Your task to perform on an android device: all mails in gmail Image 0: 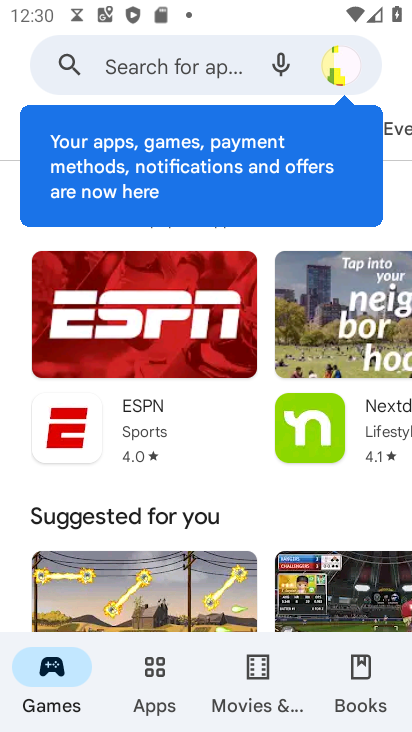
Step 0: press home button
Your task to perform on an android device: all mails in gmail Image 1: 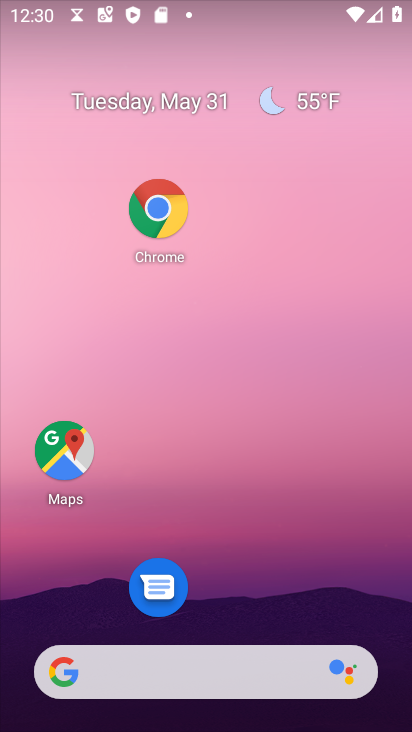
Step 1: drag from (290, 527) to (192, 97)
Your task to perform on an android device: all mails in gmail Image 2: 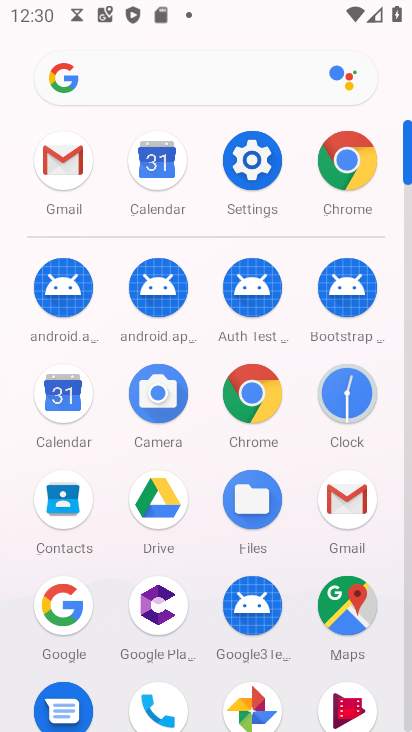
Step 2: click (66, 155)
Your task to perform on an android device: all mails in gmail Image 3: 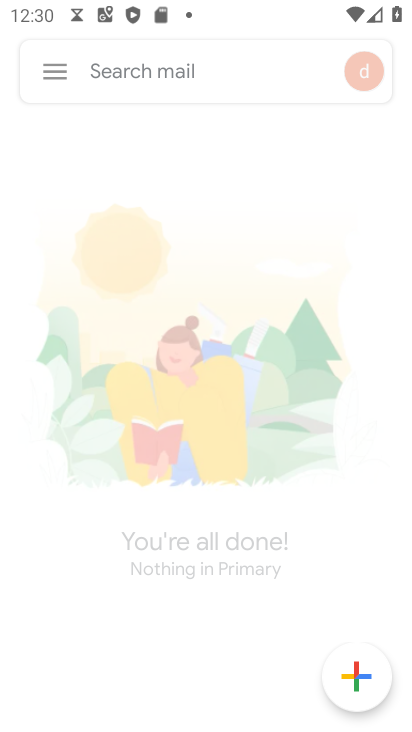
Step 3: click (65, 90)
Your task to perform on an android device: all mails in gmail Image 4: 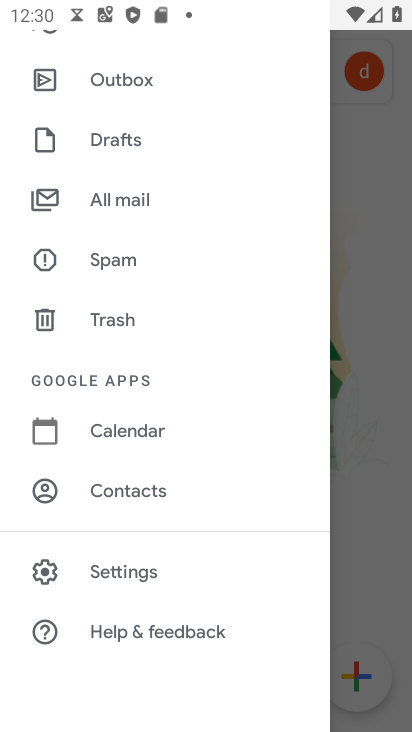
Step 4: click (97, 203)
Your task to perform on an android device: all mails in gmail Image 5: 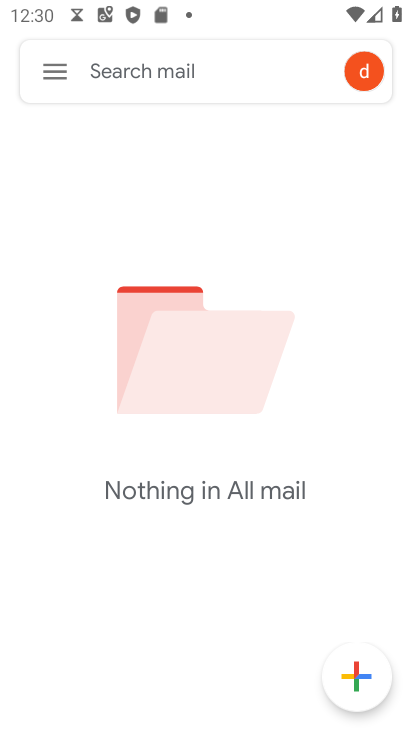
Step 5: task complete